Your task to perform on an android device: find photos in the google photos app Image 0: 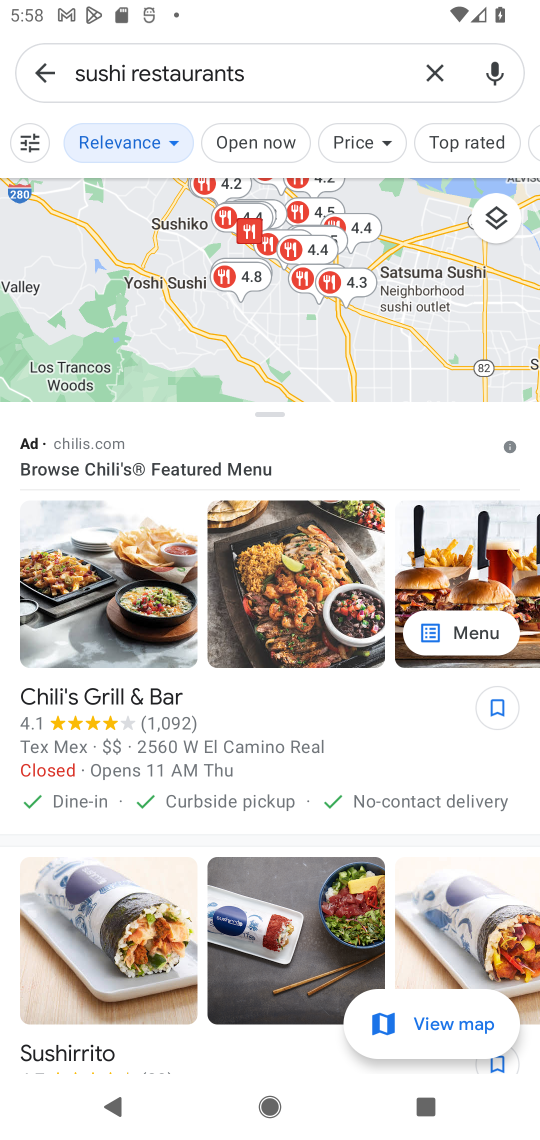
Step 0: task complete